Your task to perform on an android device: turn on the 24-hour format for clock Image 0: 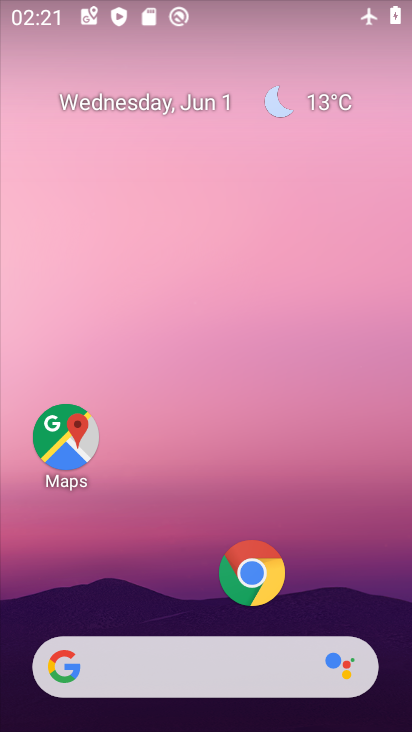
Step 0: drag from (206, 624) to (160, 88)
Your task to perform on an android device: turn on the 24-hour format for clock Image 1: 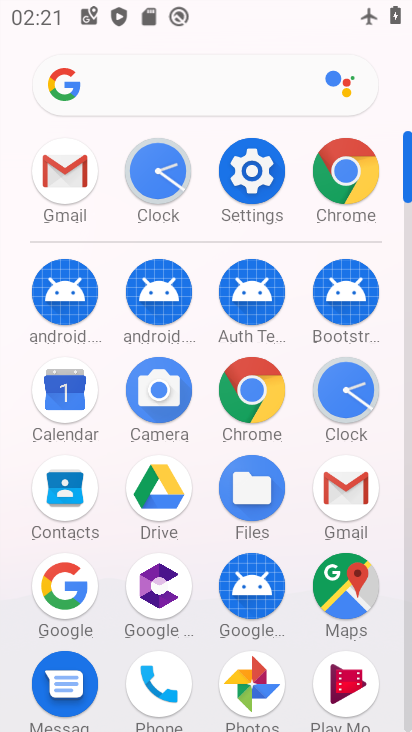
Step 1: click (340, 375)
Your task to perform on an android device: turn on the 24-hour format for clock Image 2: 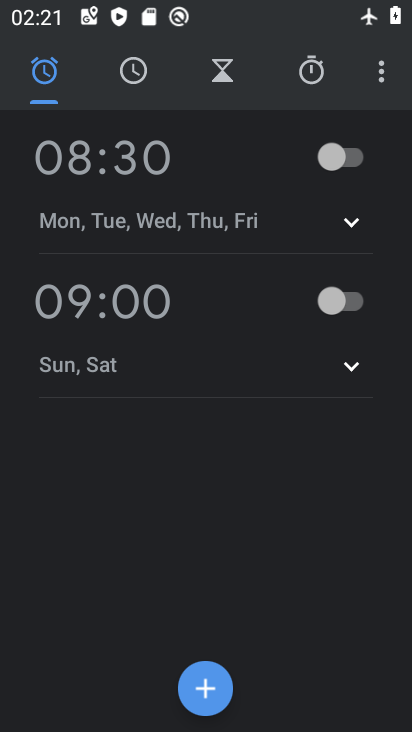
Step 2: click (376, 81)
Your task to perform on an android device: turn on the 24-hour format for clock Image 3: 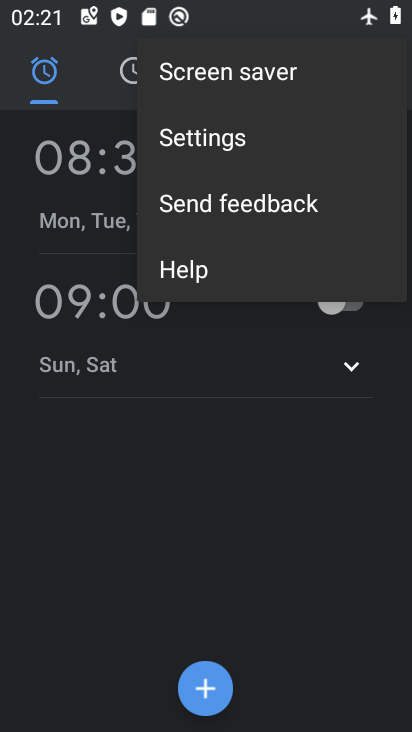
Step 3: click (214, 144)
Your task to perform on an android device: turn on the 24-hour format for clock Image 4: 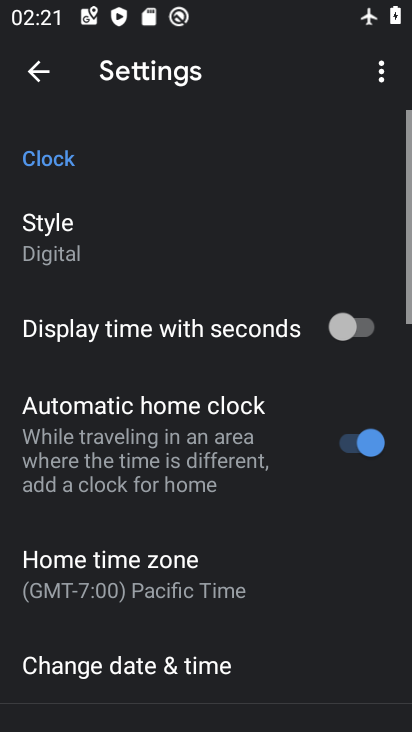
Step 4: drag from (163, 526) to (152, 61)
Your task to perform on an android device: turn on the 24-hour format for clock Image 5: 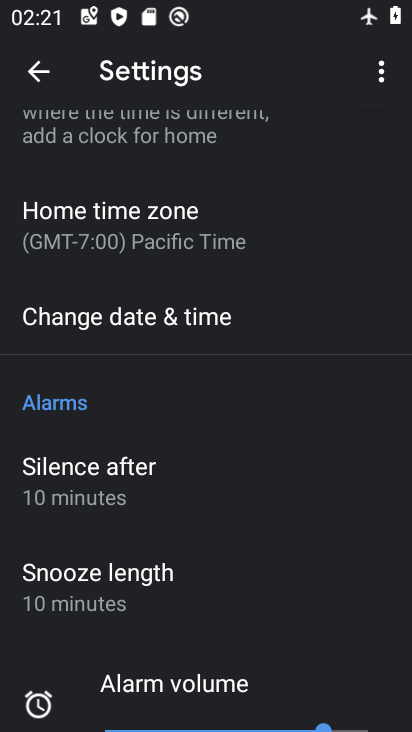
Step 5: click (157, 310)
Your task to perform on an android device: turn on the 24-hour format for clock Image 6: 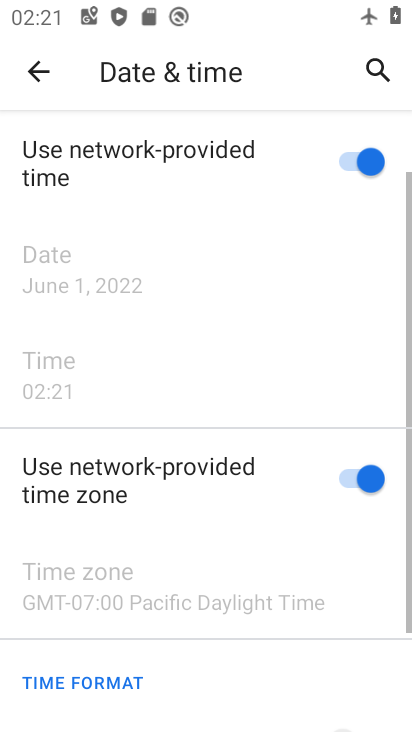
Step 6: task complete